Your task to perform on an android device: create a new album in the google photos Image 0: 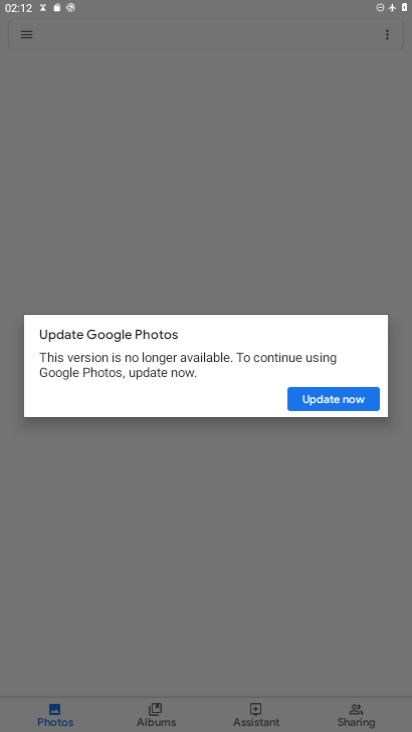
Step 0: press home button
Your task to perform on an android device: create a new album in the google photos Image 1: 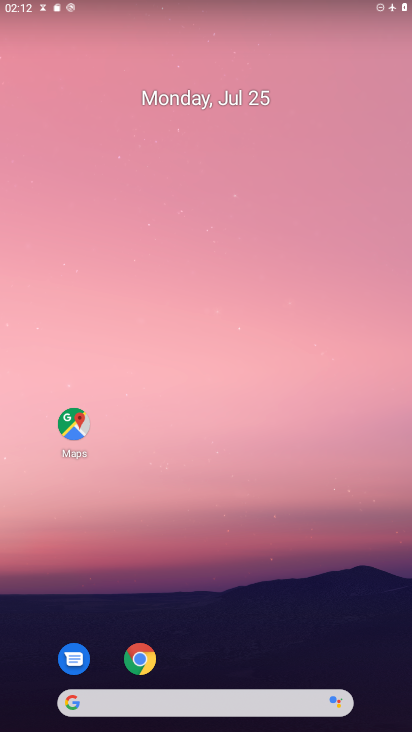
Step 1: drag from (213, 615) to (228, 230)
Your task to perform on an android device: create a new album in the google photos Image 2: 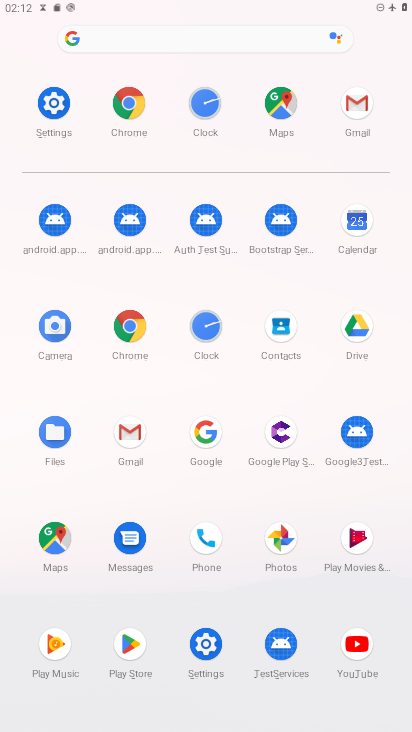
Step 2: click (287, 536)
Your task to perform on an android device: create a new album in the google photos Image 3: 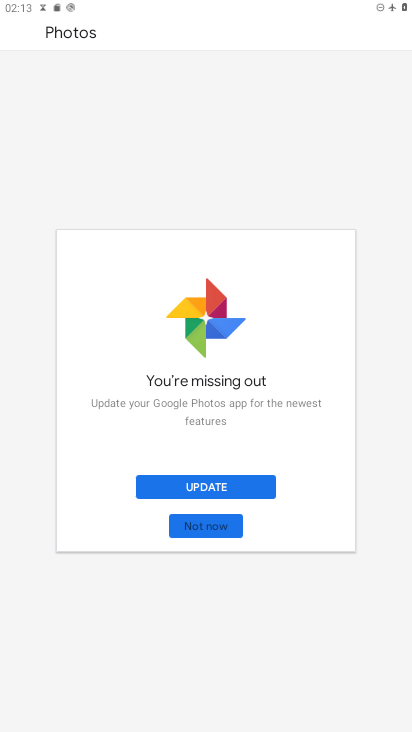
Step 3: click (223, 527)
Your task to perform on an android device: create a new album in the google photos Image 4: 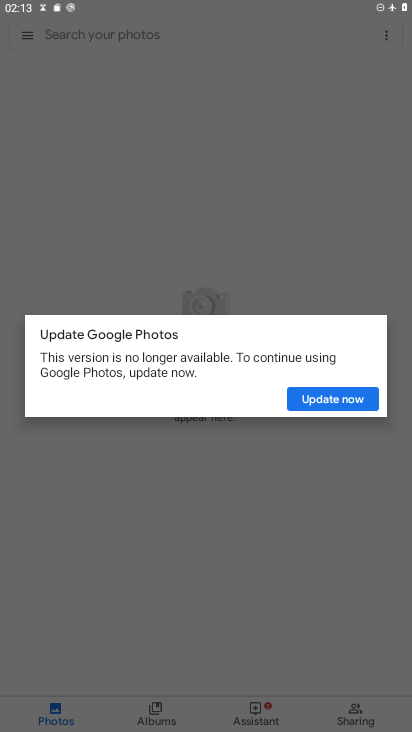
Step 4: click (328, 397)
Your task to perform on an android device: create a new album in the google photos Image 5: 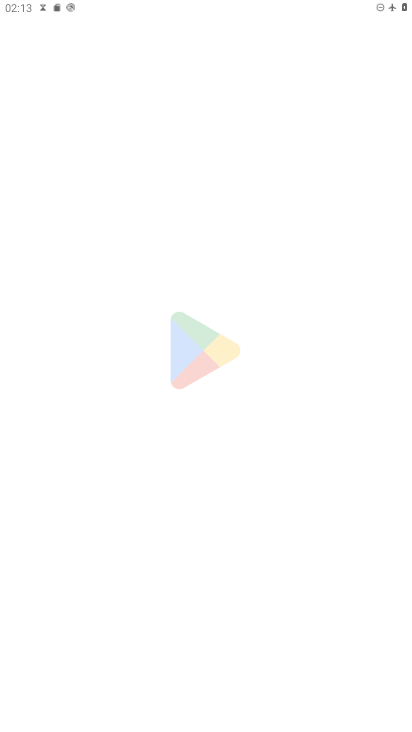
Step 5: press back button
Your task to perform on an android device: create a new album in the google photos Image 6: 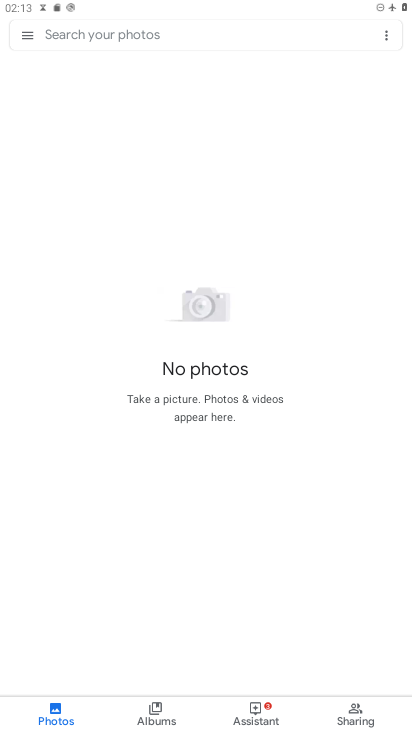
Step 6: click (156, 712)
Your task to perform on an android device: create a new album in the google photos Image 7: 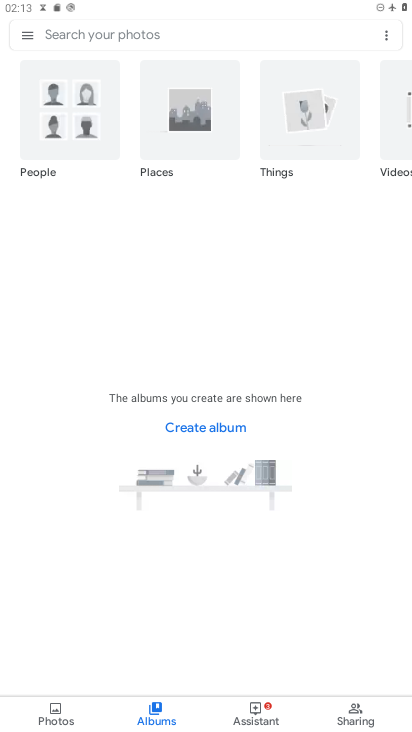
Step 7: click (75, 720)
Your task to perform on an android device: create a new album in the google photos Image 8: 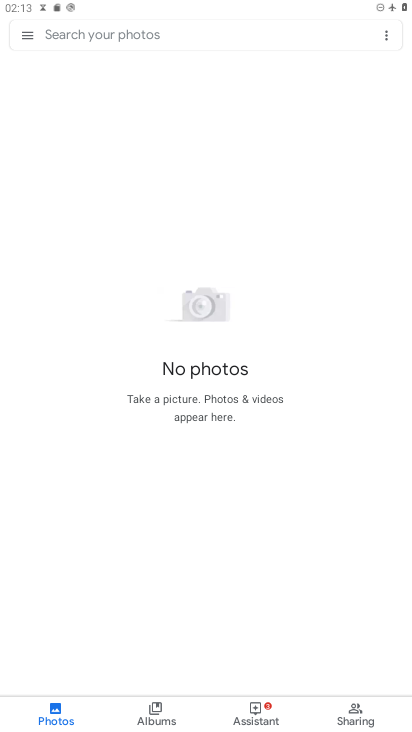
Step 8: click (147, 730)
Your task to perform on an android device: create a new album in the google photos Image 9: 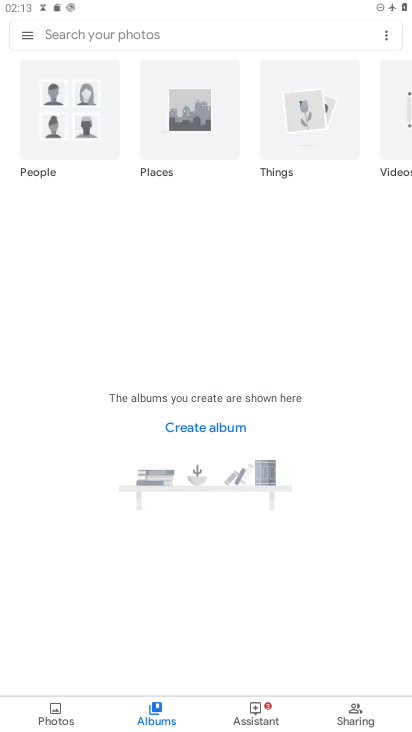
Step 9: task complete